Your task to perform on an android device: Search for sushi restaurants on Maps Image 0: 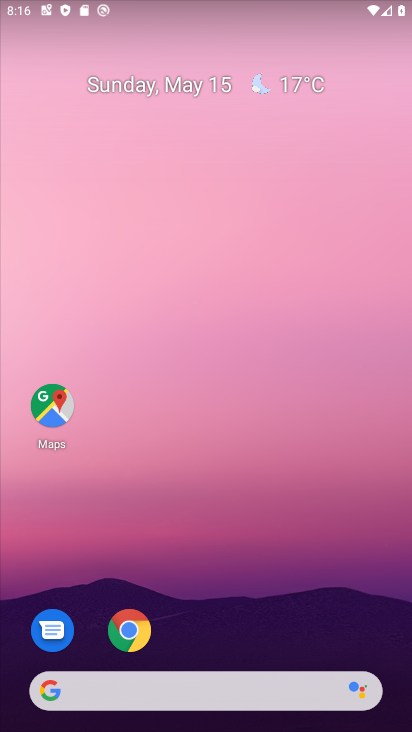
Step 0: drag from (255, 498) to (206, 99)
Your task to perform on an android device: Search for sushi restaurants on Maps Image 1: 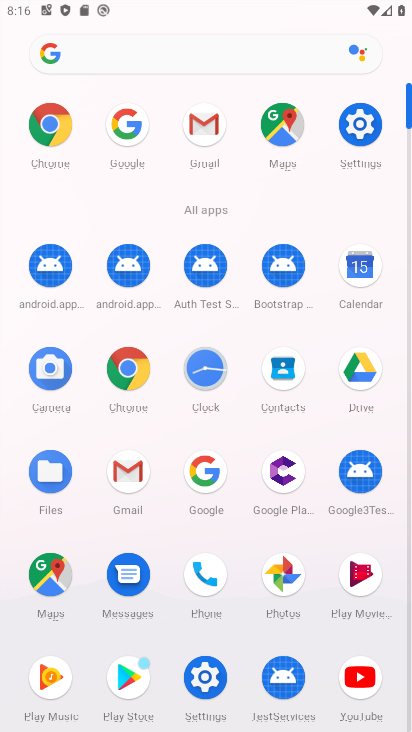
Step 1: click (299, 143)
Your task to perform on an android device: Search for sushi restaurants on Maps Image 2: 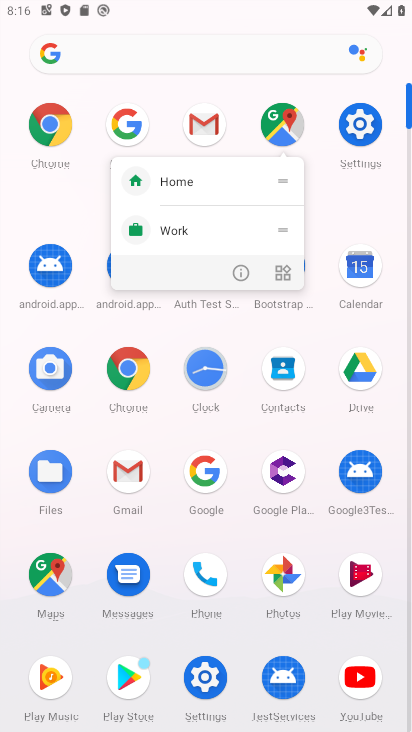
Step 2: click (299, 143)
Your task to perform on an android device: Search for sushi restaurants on Maps Image 3: 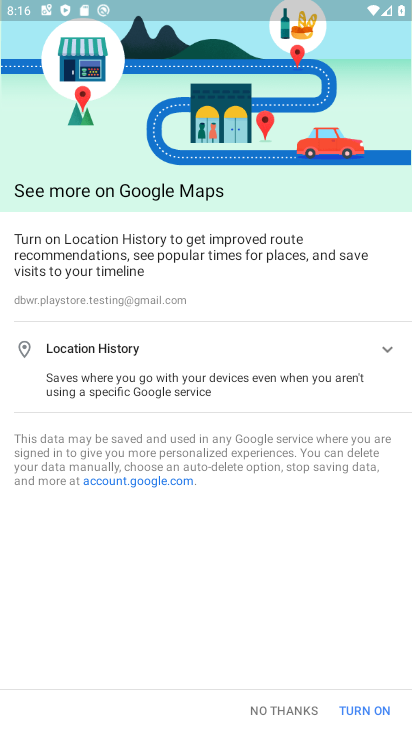
Step 3: click (256, 707)
Your task to perform on an android device: Search for sushi restaurants on Maps Image 4: 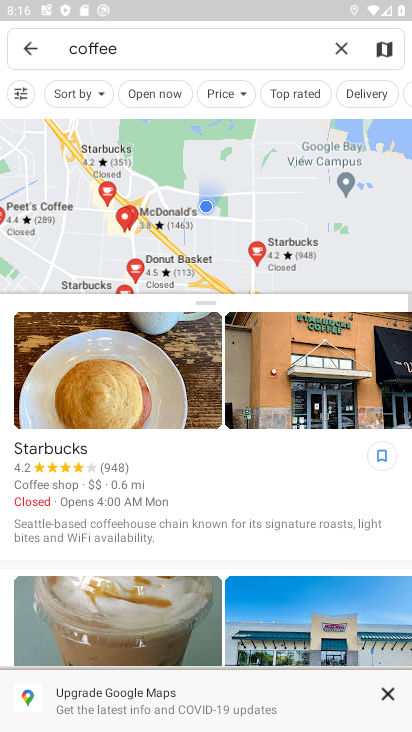
Step 4: click (329, 51)
Your task to perform on an android device: Search for sushi restaurants on Maps Image 5: 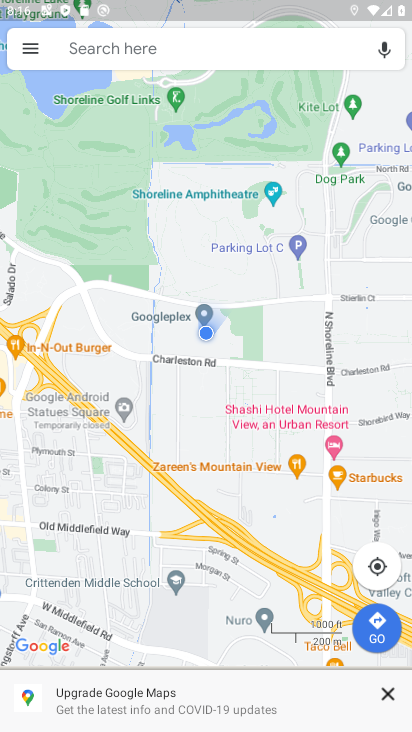
Step 5: click (163, 41)
Your task to perform on an android device: Search for sushi restaurants on Maps Image 6: 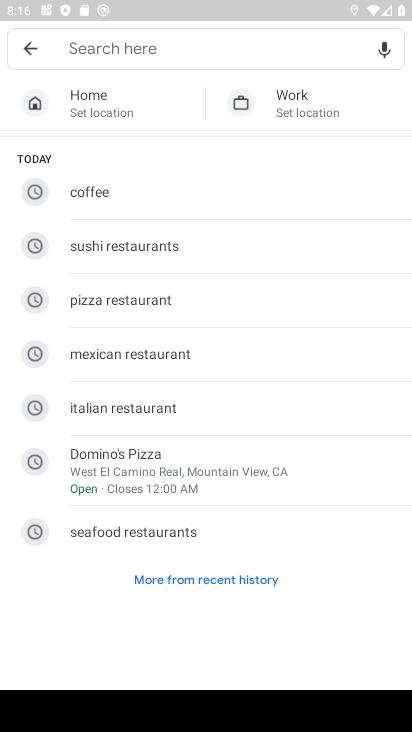
Step 6: click (111, 266)
Your task to perform on an android device: Search for sushi restaurants on Maps Image 7: 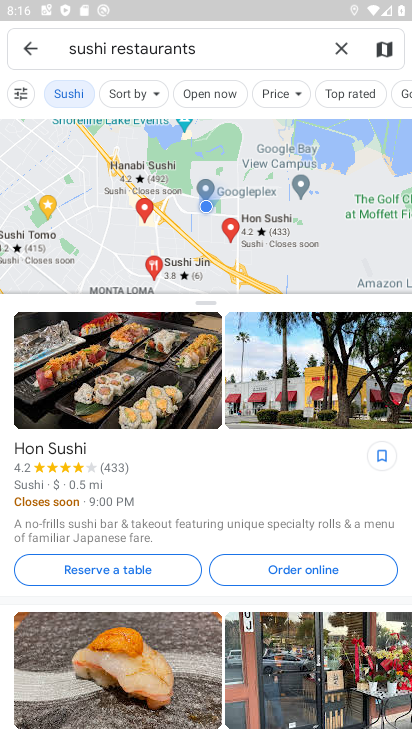
Step 7: task complete